Your task to perform on an android device: turn on the 12-hour format for clock Image 0: 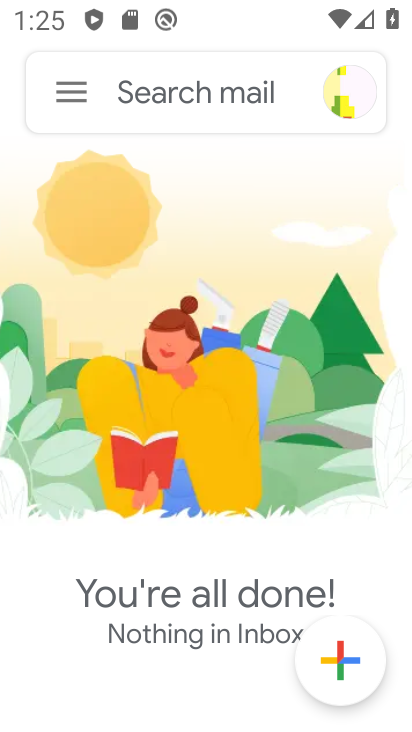
Step 0: press home button
Your task to perform on an android device: turn on the 12-hour format for clock Image 1: 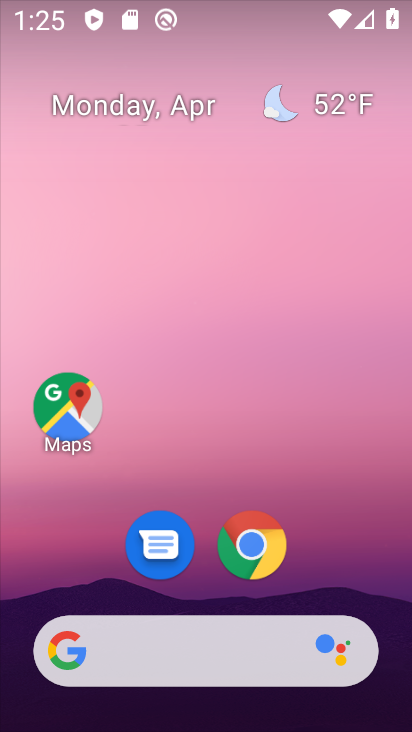
Step 1: drag from (223, 671) to (222, 128)
Your task to perform on an android device: turn on the 12-hour format for clock Image 2: 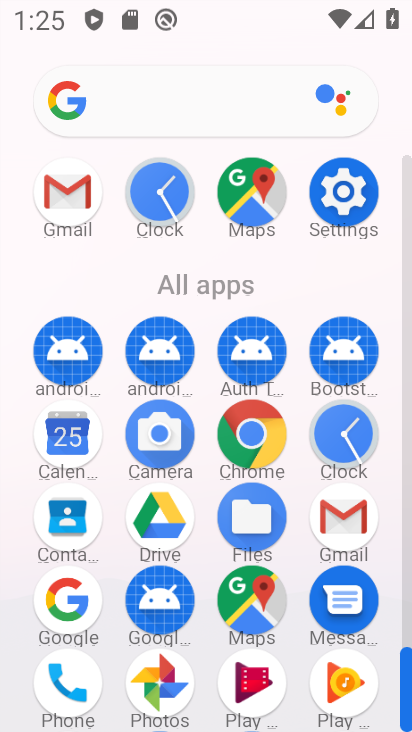
Step 2: click (346, 443)
Your task to perform on an android device: turn on the 12-hour format for clock Image 3: 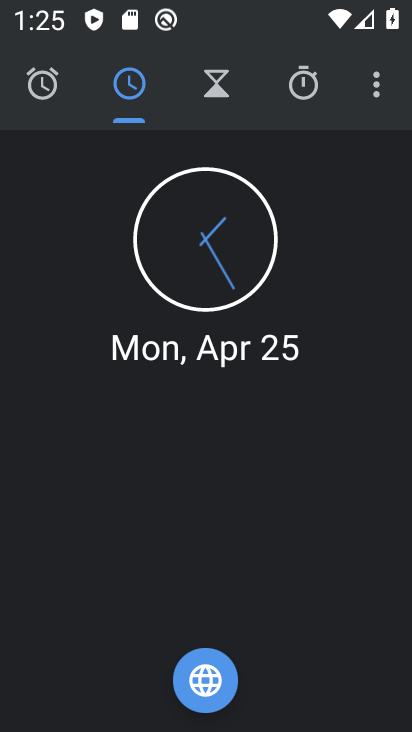
Step 3: click (375, 93)
Your task to perform on an android device: turn on the 12-hour format for clock Image 4: 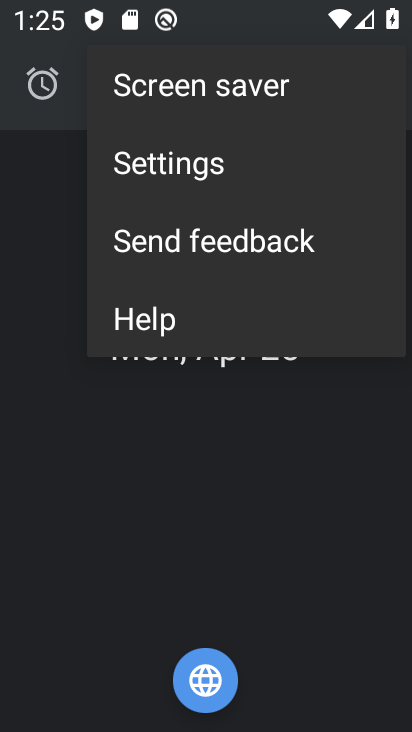
Step 4: click (148, 158)
Your task to perform on an android device: turn on the 12-hour format for clock Image 5: 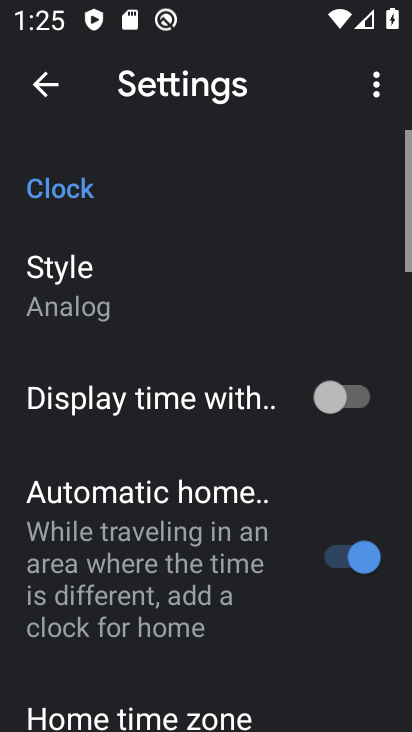
Step 5: drag from (148, 671) to (155, 230)
Your task to perform on an android device: turn on the 12-hour format for clock Image 6: 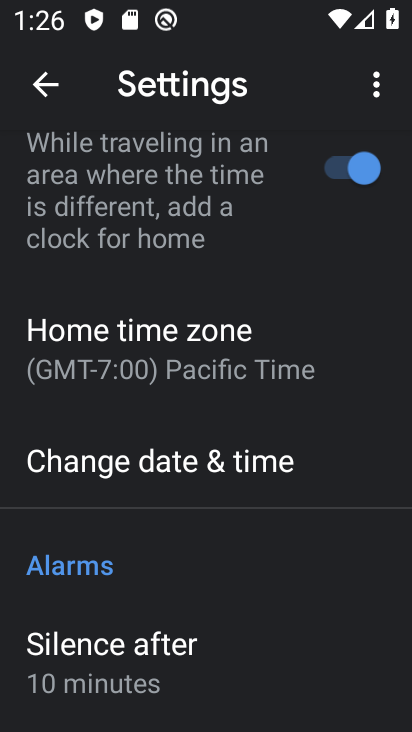
Step 6: click (142, 463)
Your task to perform on an android device: turn on the 12-hour format for clock Image 7: 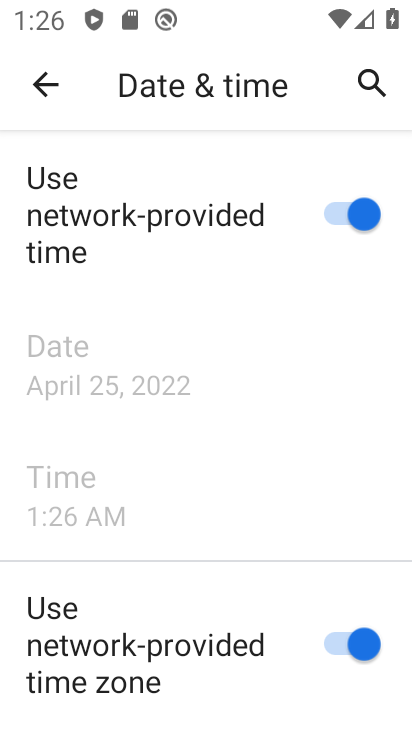
Step 7: task complete